Your task to perform on an android device: see tabs open on other devices in the chrome app Image 0: 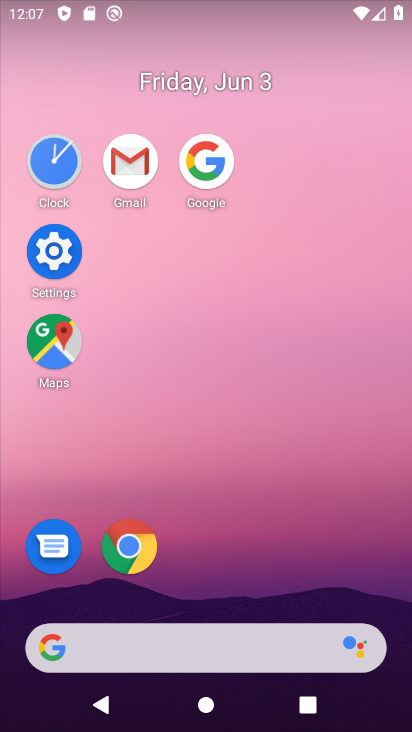
Step 0: click (142, 547)
Your task to perform on an android device: see tabs open on other devices in the chrome app Image 1: 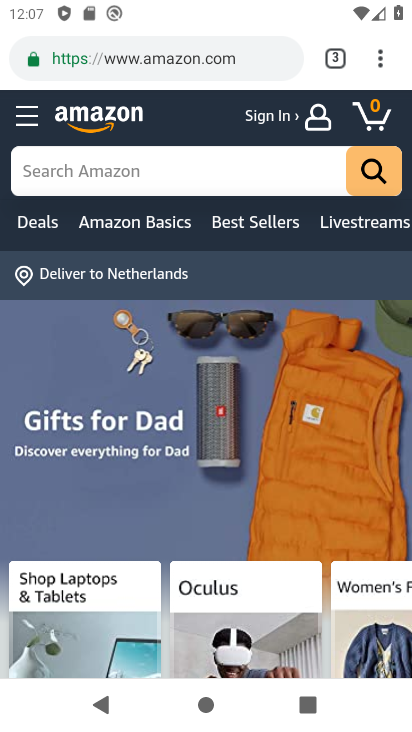
Step 1: click (345, 51)
Your task to perform on an android device: see tabs open on other devices in the chrome app Image 2: 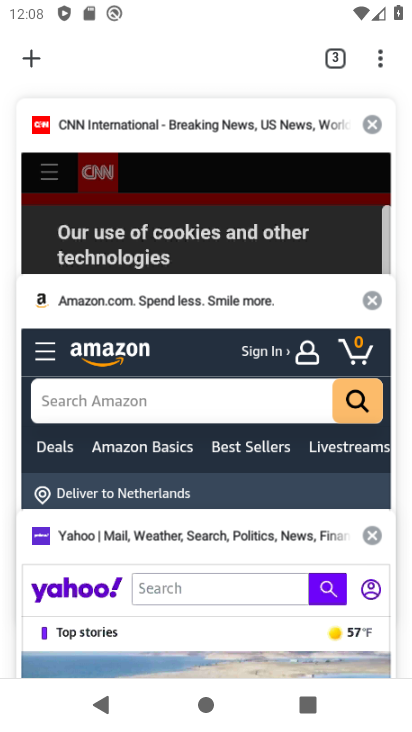
Step 2: click (44, 48)
Your task to perform on an android device: see tabs open on other devices in the chrome app Image 3: 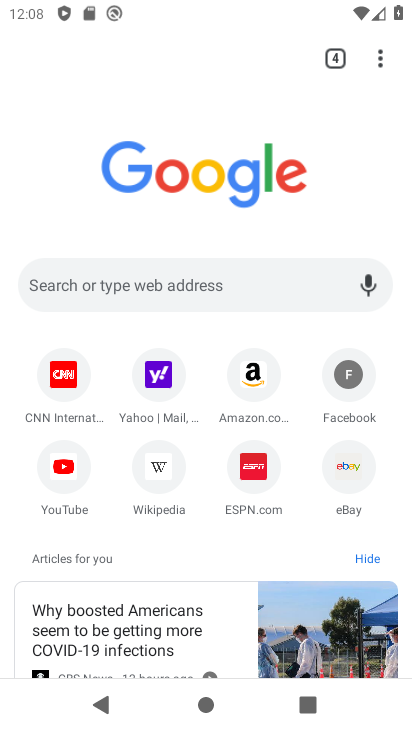
Step 3: click (391, 66)
Your task to perform on an android device: see tabs open on other devices in the chrome app Image 4: 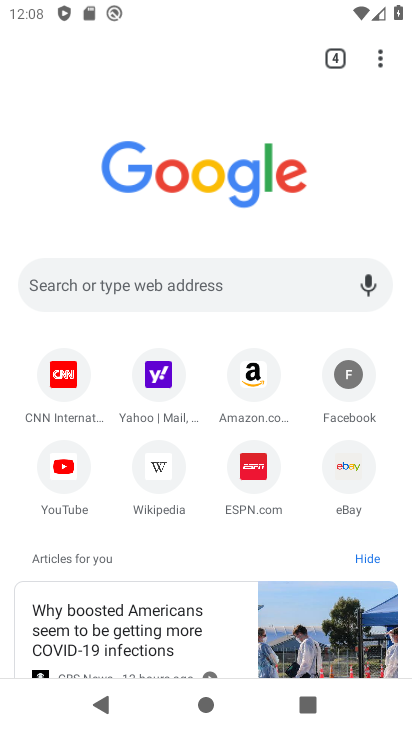
Step 4: click (373, 64)
Your task to perform on an android device: see tabs open on other devices in the chrome app Image 5: 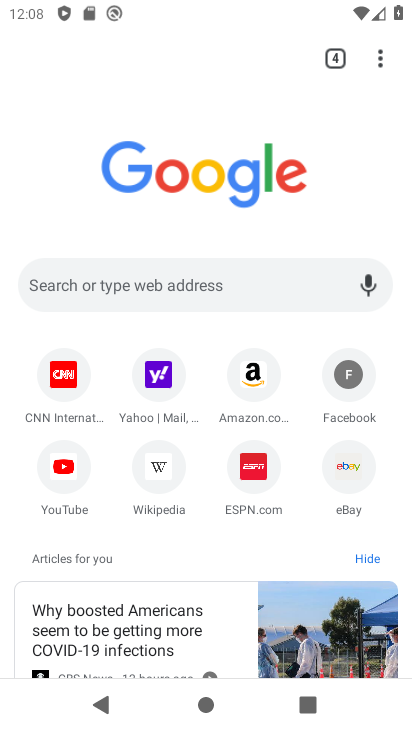
Step 5: click (386, 59)
Your task to perform on an android device: see tabs open on other devices in the chrome app Image 6: 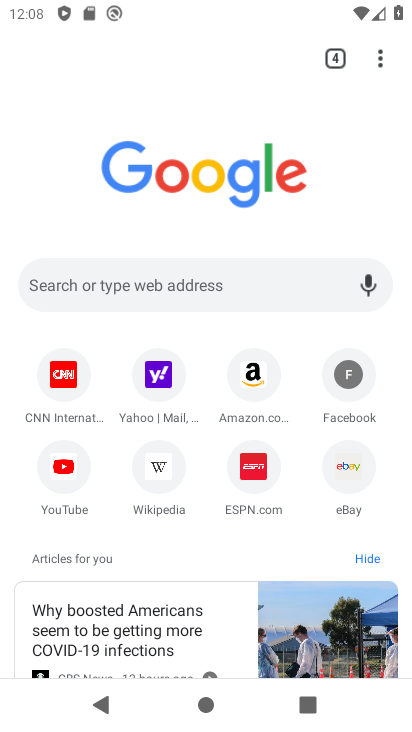
Step 6: click (377, 57)
Your task to perform on an android device: see tabs open on other devices in the chrome app Image 7: 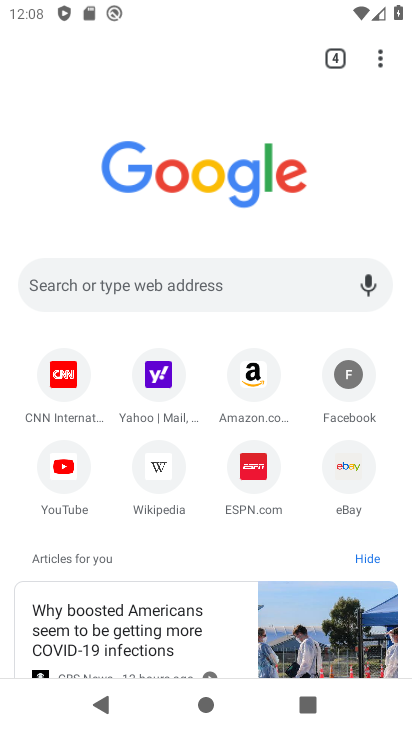
Step 7: click (385, 42)
Your task to perform on an android device: see tabs open on other devices in the chrome app Image 8: 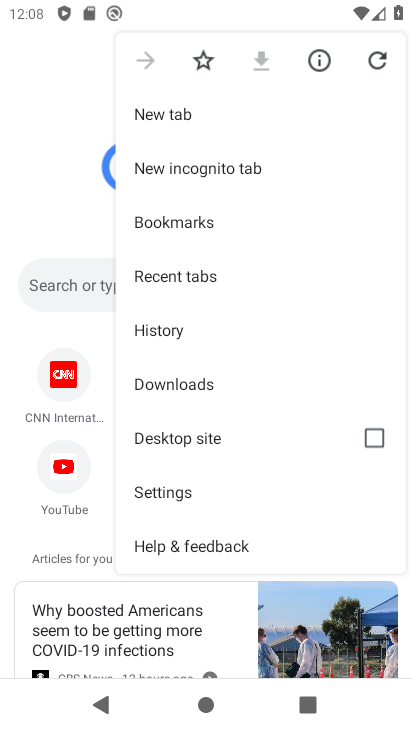
Step 8: click (262, 280)
Your task to perform on an android device: see tabs open on other devices in the chrome app Image 9: 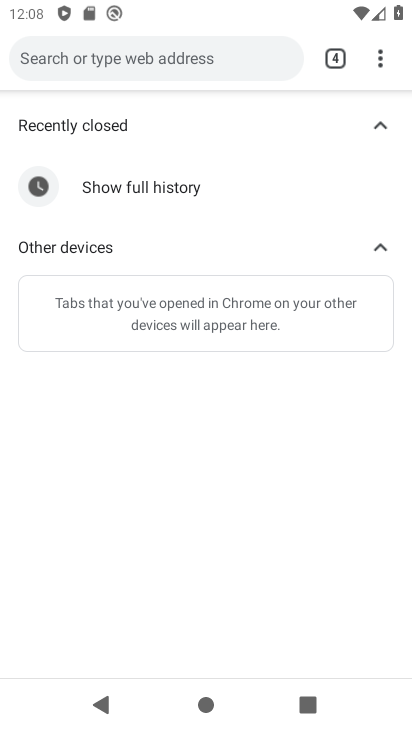
Step 9: click (168, 196)
Your task to perform on an android device: see tabs open on other devices in the chrome app Image 10: 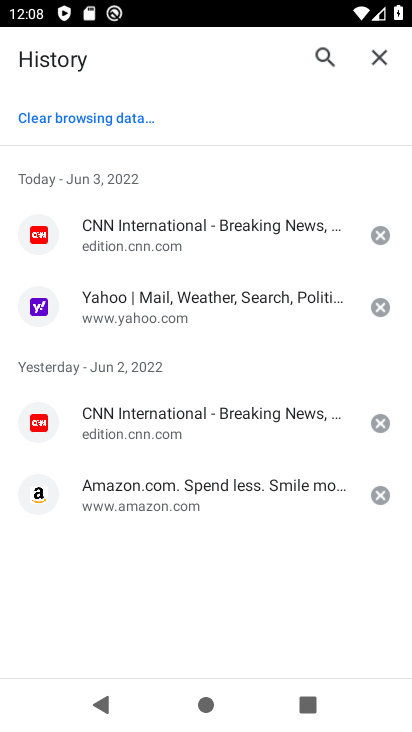
Step 10: task complete